Your task to perform on an android device: toggle improve location accuracy Image 0: 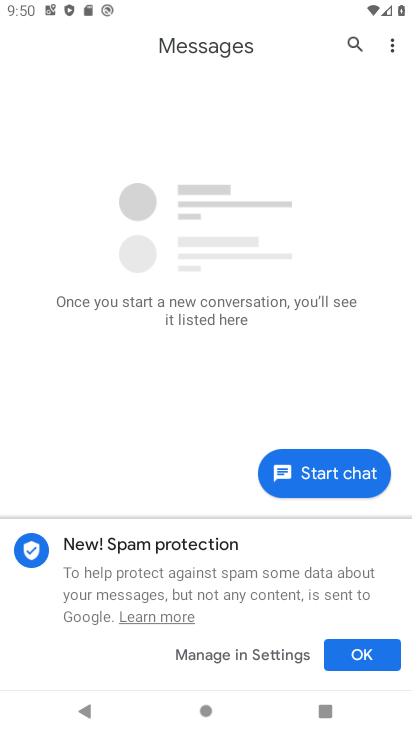
Step 0: press home button
Your task to perform on an android device: toggle improve location accuracy Image 1: 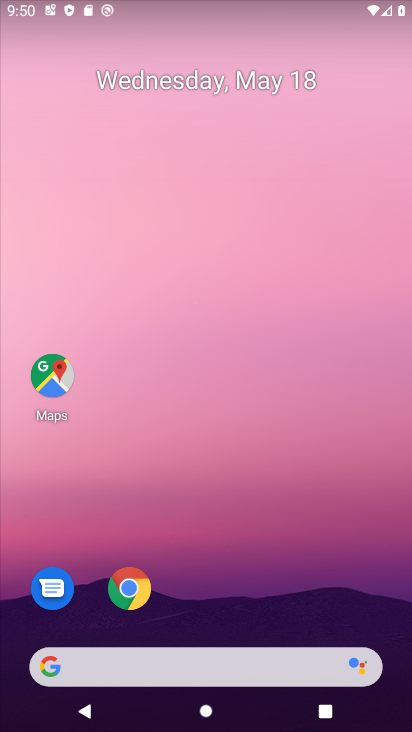
Step 1: drag from (264, 709) to (233, 228)
Your task to perform on an android device: toggle improve location accuracy Image 2: 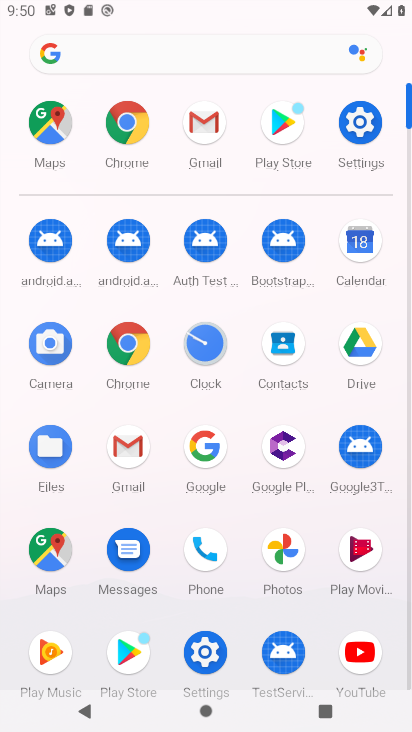
Step 2: click (352, 132)
Your task to perform on an android device: toggle improve location accuracy Image 3: 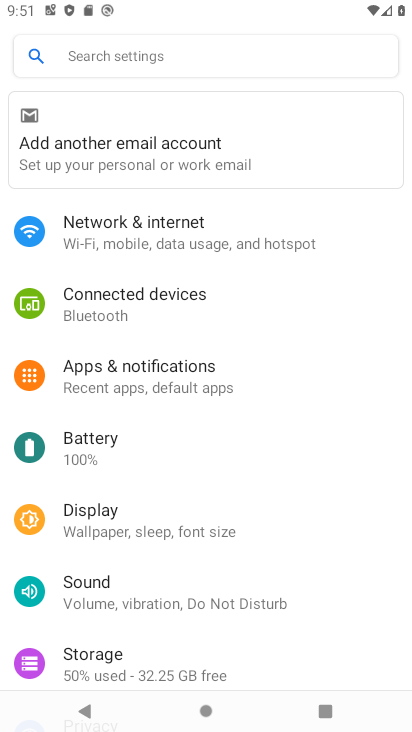
Step 3: click (141, 63)
Your task to perform on an android device: toggle improve location accuracy Image 4: 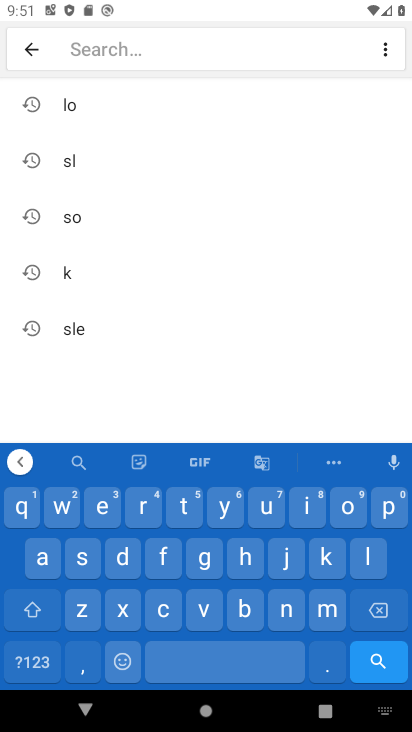
Step 4: click (81, 104)
Your task to perform on an android device: toggle improve location accuracy Image 5: 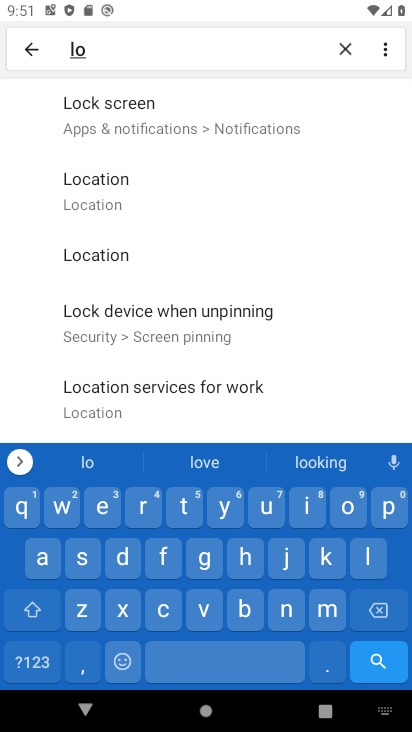
Step 5: click (128, 187)
Your task to perform on an android device: toggle improve location accuracy Image 6: 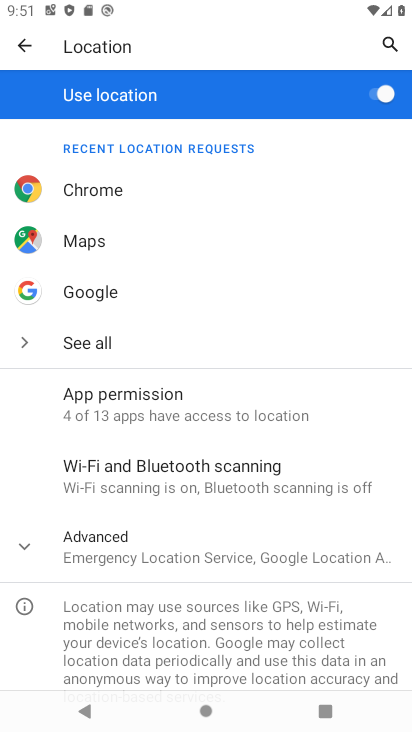
Step 6: click (103, 546)
Your task to perform on an android device: toggle improve location accuracy Image 7: 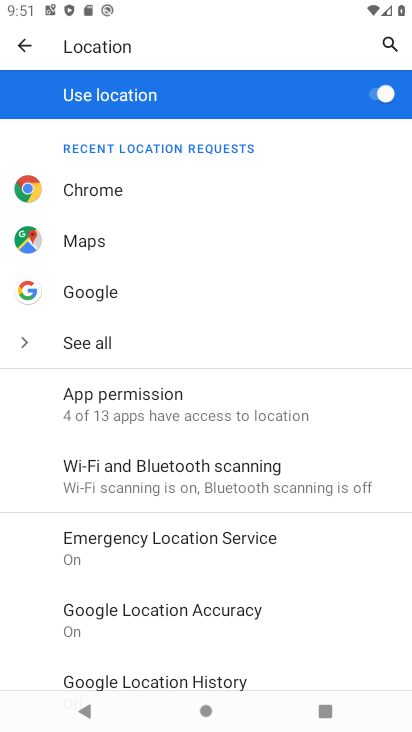
Step 7: click (185, 599)
Your task to perform on an android device: toggle improve location accuracy Image 8: 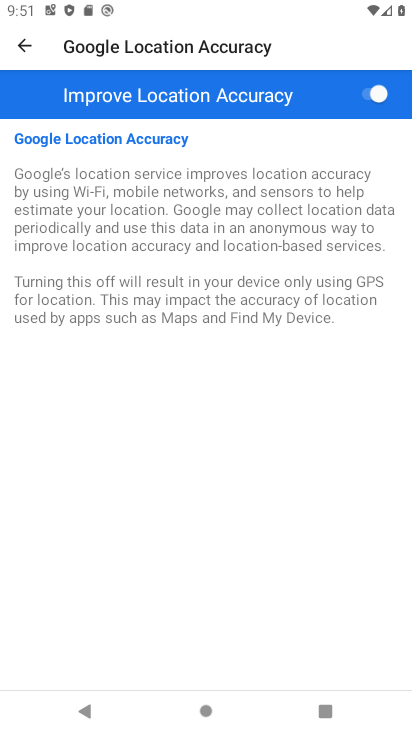
Step 8: task complete